Your task to perform on an android device: manage bookmarks in the chrome app Image 0: 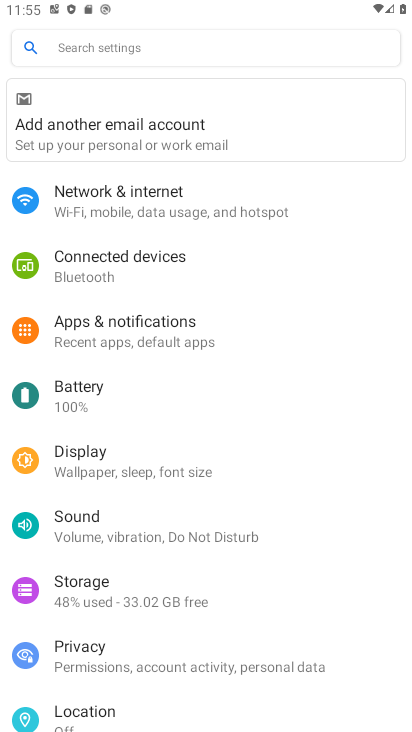
Step 0: press home button
Your task to perform on an android device: manage bookmarks in the chrome app Image 1: 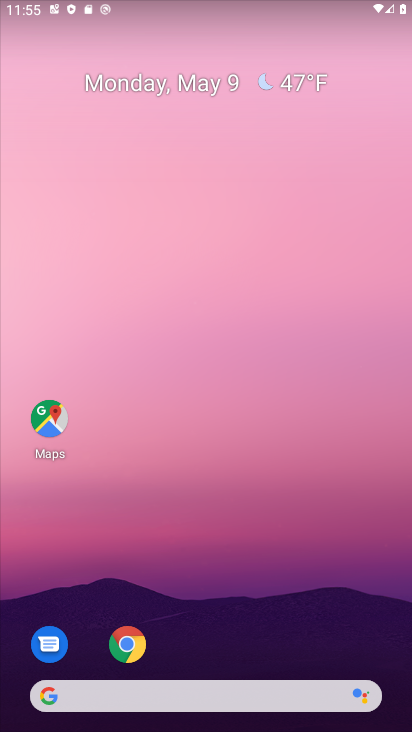
Step 1: click (127, 647)
Your task to perform on an android device: manage bookmarks in the chrome app Image 2: 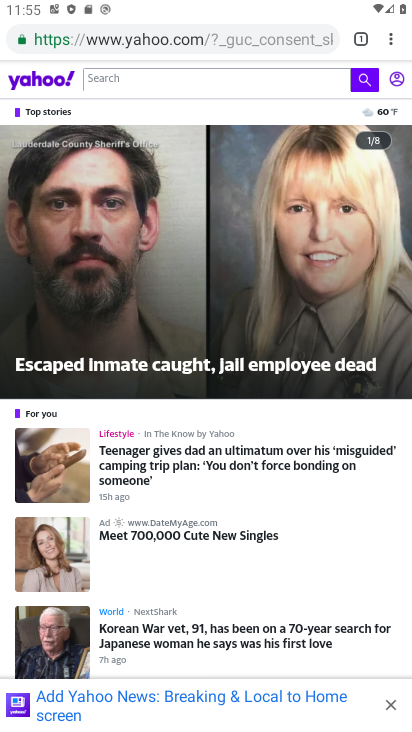
Step 2: click (381, 38)
Your task to perform on an android device: manage bookmarks in the chrome app Image 3: 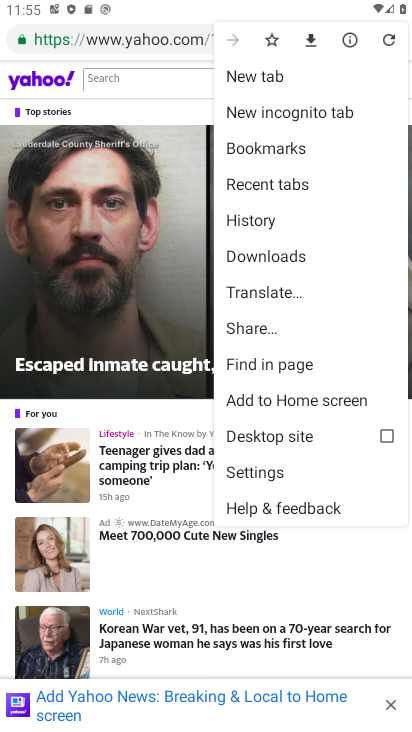
Step 3: click (306, 139)
Your task to perform on an android device: manage bookmarks in the chrome app Image 4: 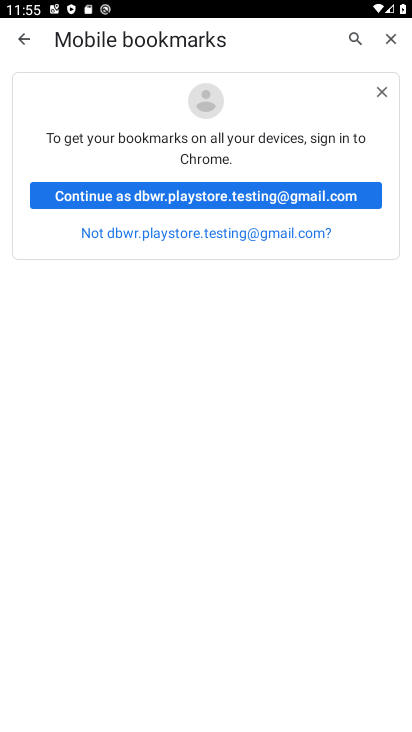
Step 4: click (165, 192)
Your task to perform on an android device: manage bookmarks in the chrome app Image 5: 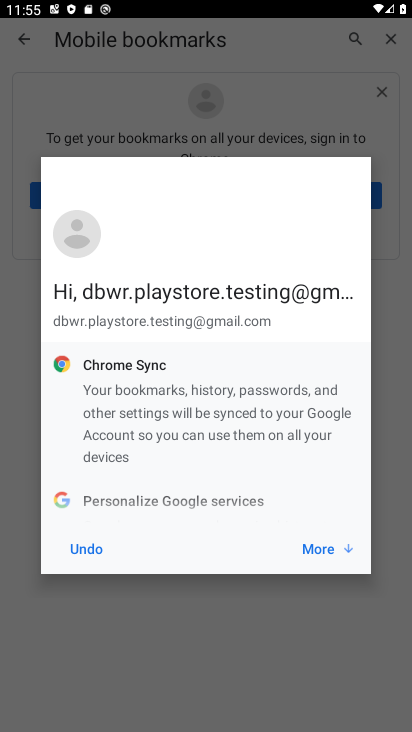
Step 5: click (332, 555)
Your task to perform on an android device: manage bookmarks in the chrome app Image 6: 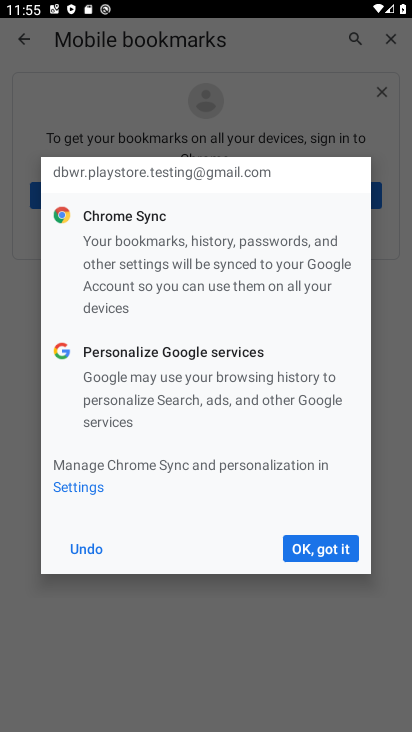
Step 6: click (332, 555)
Your task to perform on an android device: manage bookmarks in the chrome app Image 7: 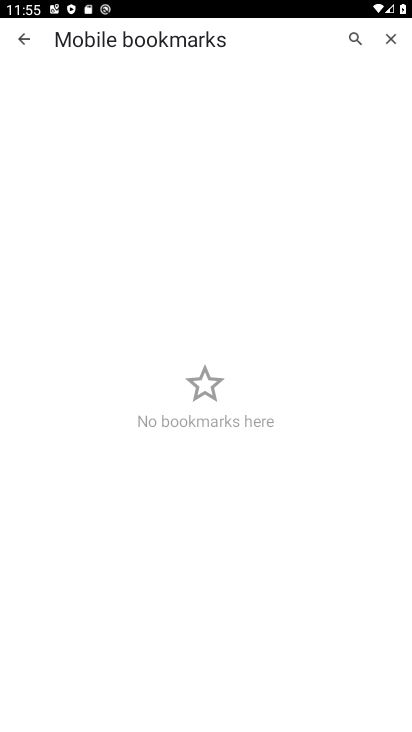
Step 7: task complete